Your task to perform on an android device: turn notification dots on Image 0: 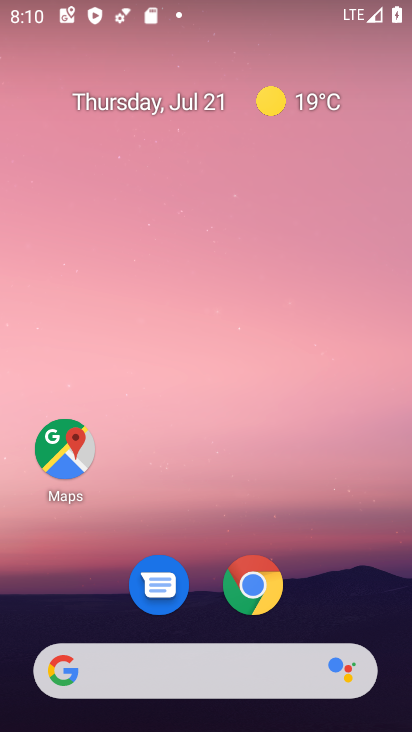
Step 0: drag from (332, 599) to (237, 111)
Your task to perform on an android device: turn notification dots on Image 1: 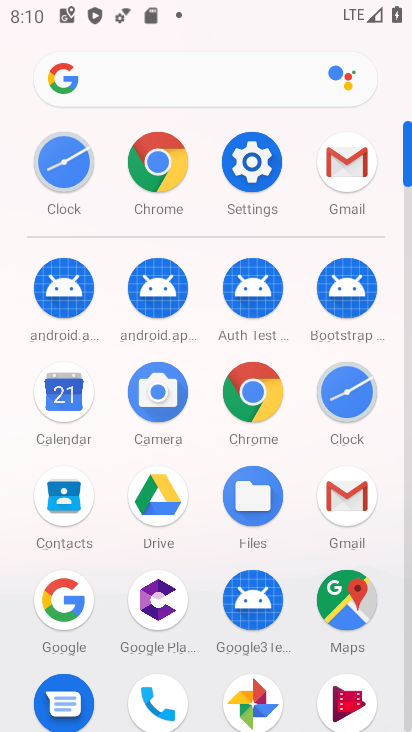
Step 1: click (256, 165)
Your task to perform on an android device: turn notification dots on Image 2: 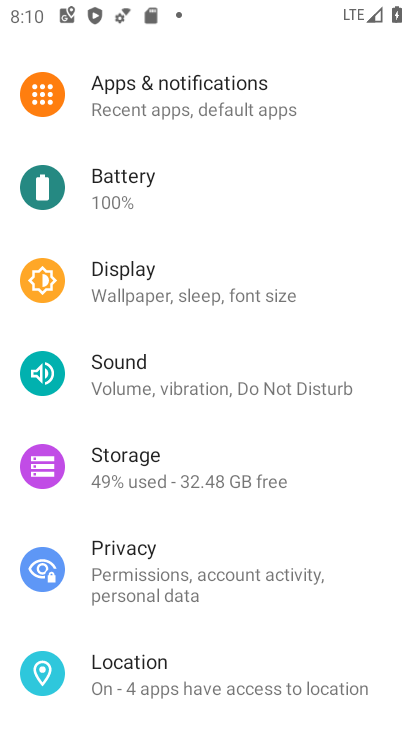
Step 2: drag from (254, 166) to (268, 620)
Your task to perform on an android device: turn notification dots on Image 3: 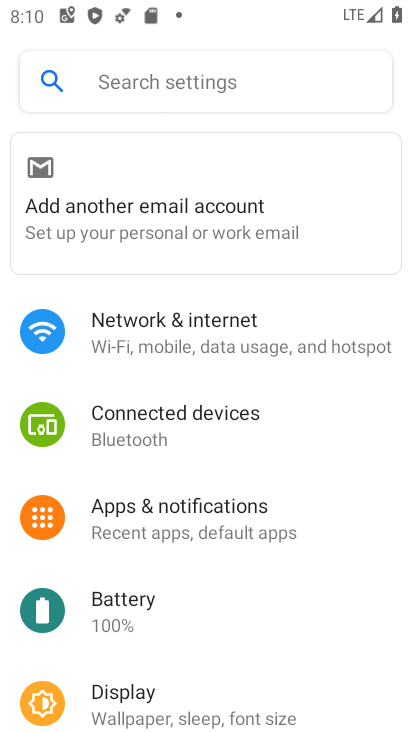
Step 3: click (227, 521)
Your task to perform on an android device: turn notification dots on Image 4: 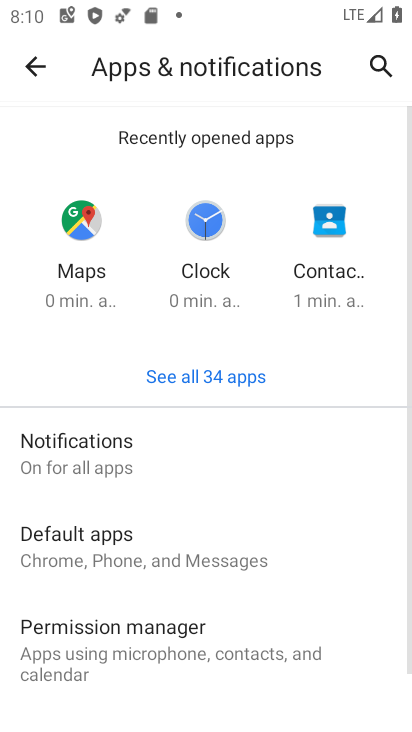
Step 4: click (120, 455)
Your task to perform on an android device: turn notification dots on Image 5: 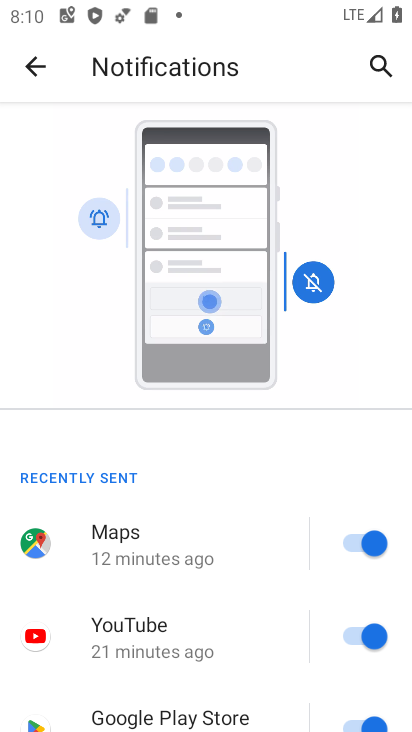
Step 5: drag from (252, 607) to (252, 504)
Your task to perform on an android device: turn notification dots on Image 6: 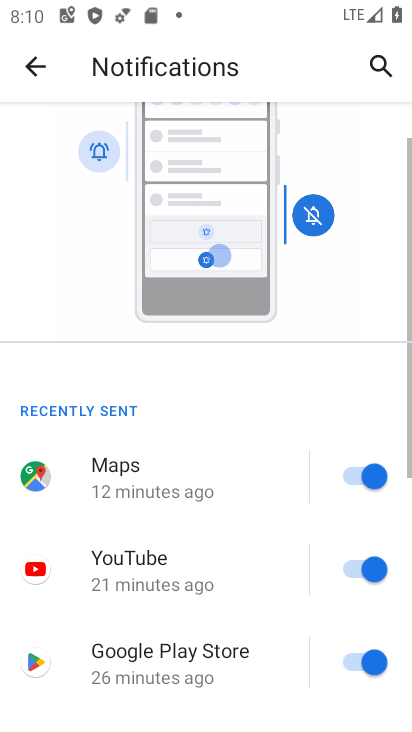
Step 6: drag from (257, 466) to (250, 181)
Your task to perform on an android device: turn notification dots on Image 7: 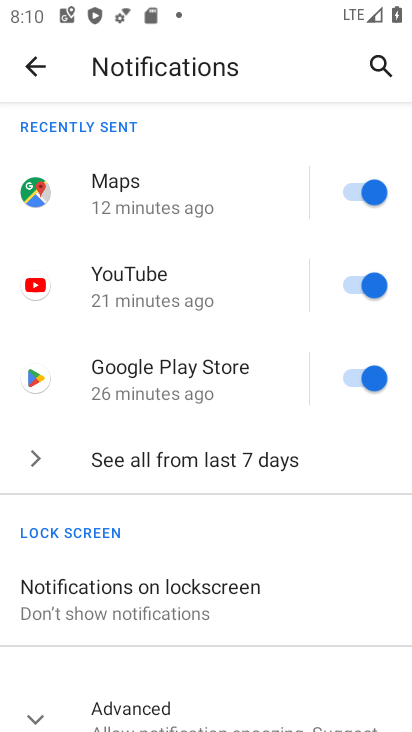
Step 7: click (32, 706)
Your task to perform on an android device: turn notification dots on Image 8: 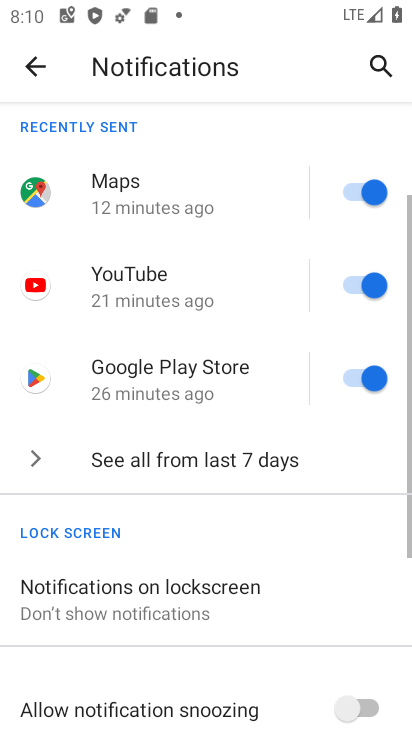
Step 8: task complete